Your task to perform on an android device: What's the weather? Image 0: 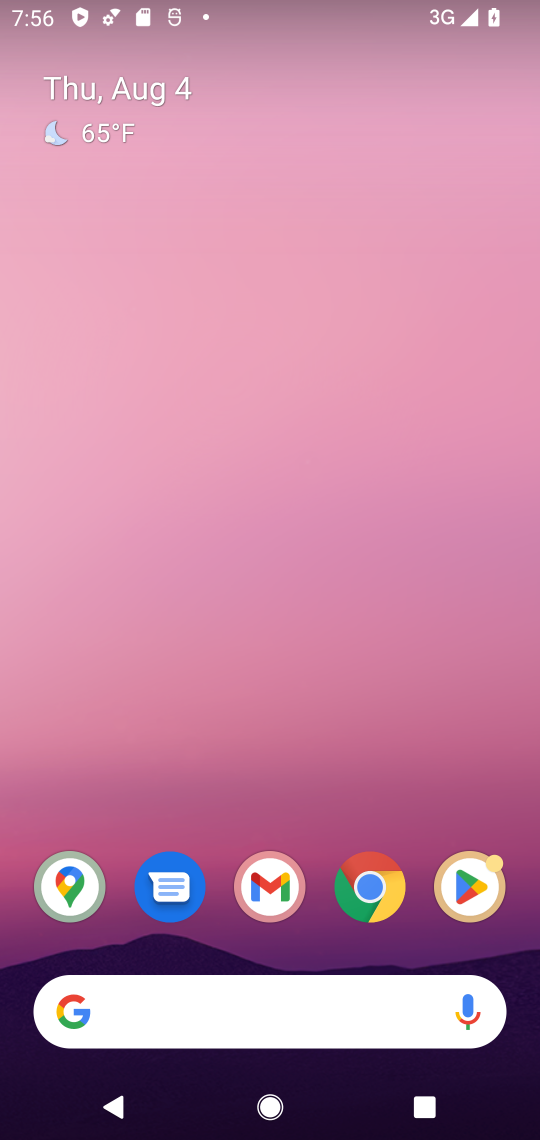
Step 0: drag from (207, 1006) to (205, 424)
Your task to perform on an android device: What's the weather? Image 1: 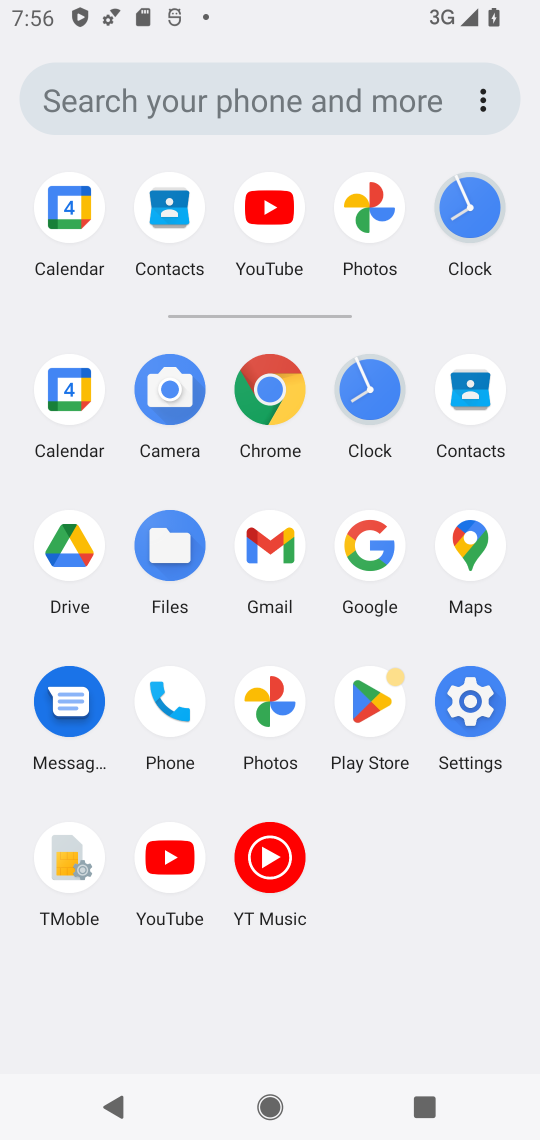
Step 1: click (373, 548)
Your task to perform on an android device: What's the weather? Image 2: 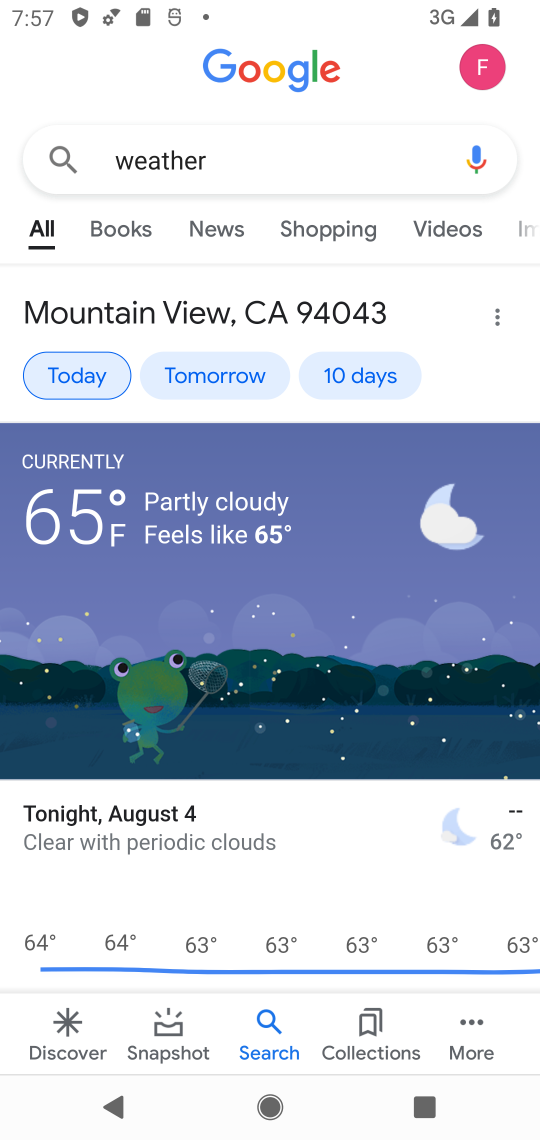
Step 2: task complete